Your task to perform on an android device: What's the weather today? Image 0: 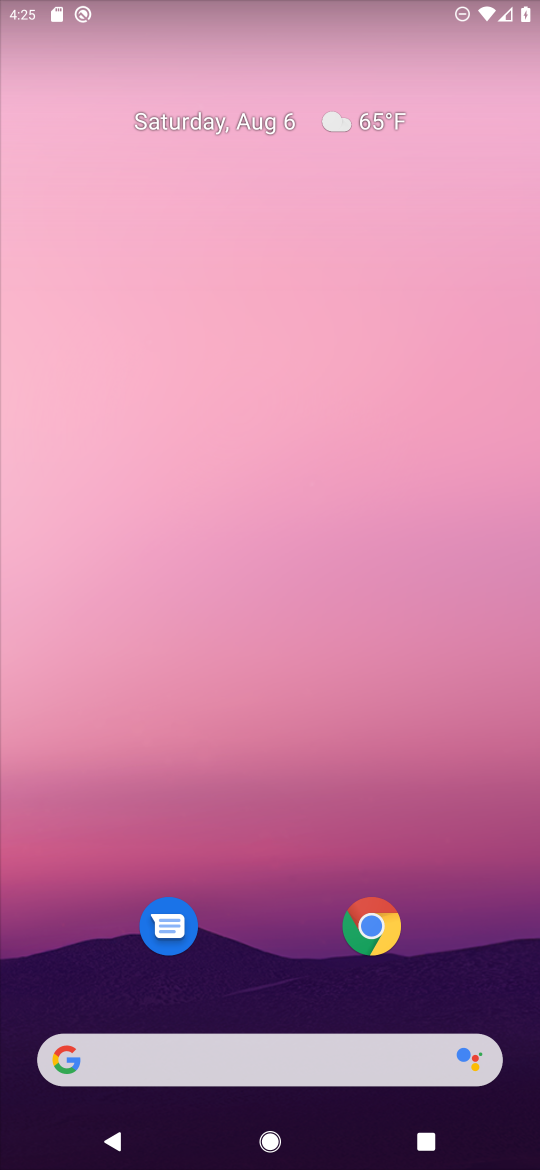
Step 0: drag from (267, 931) to (272, 359)
Your task to perform on an android device: What's the weather today? Image 1: 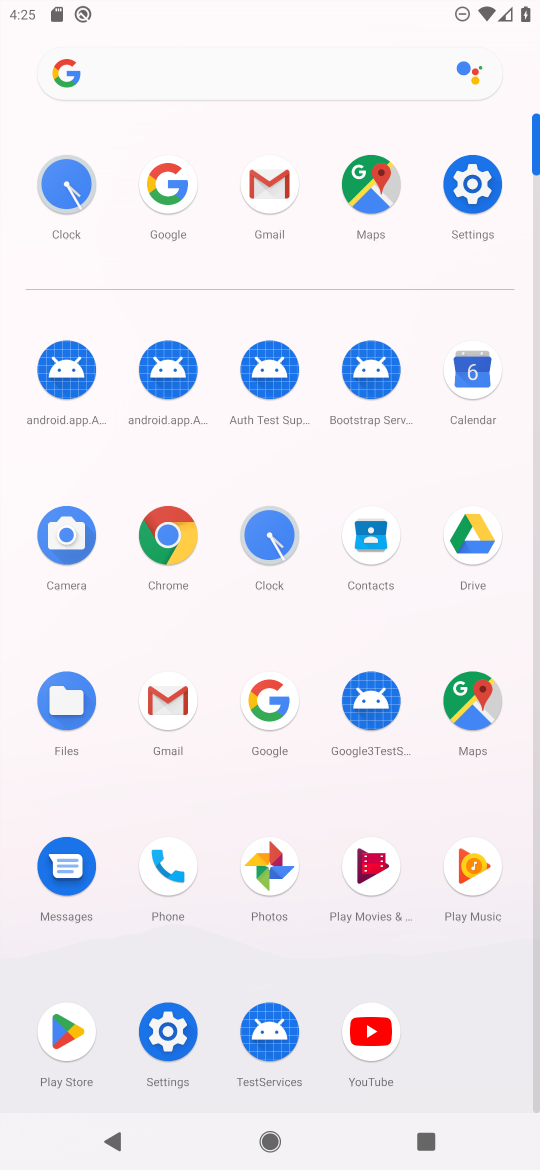
Step 1: click (280, 687)
Your task to perform on an android device: What's the weather today? Image 2: 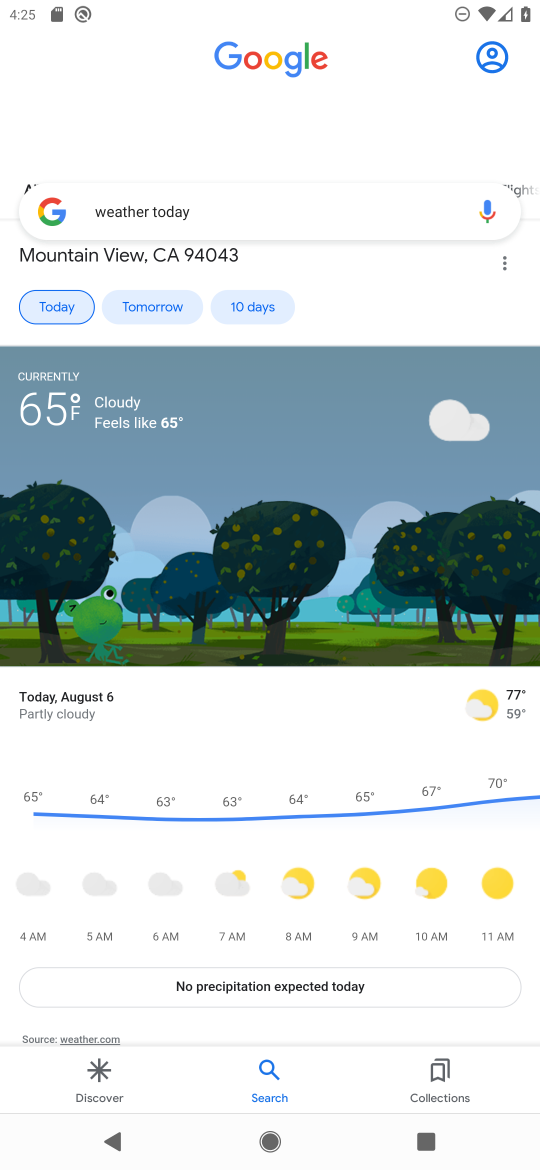
Step 2: task complete